Your task to perform on an android device: Go to calendar. Show me events next week Image 0: 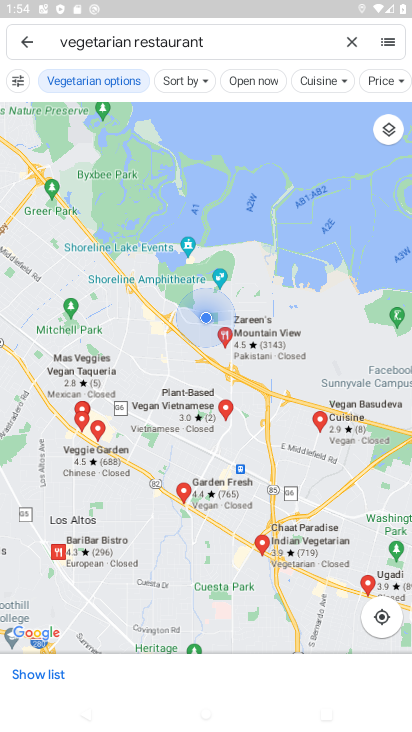
Step 0: press home button
Your task to perform on an android device: Go to calendar. Show me events next week Image 1: 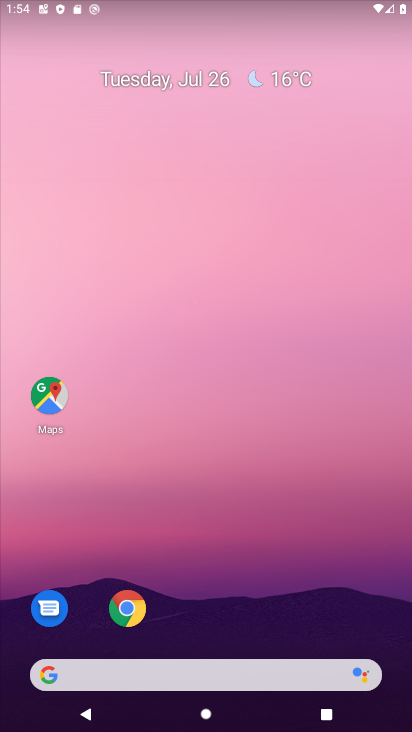
Step 1: drag from (314, 611) to (283, 334)
Your task to perform on an android device: Go to calendar. Show me events next week Image 2: 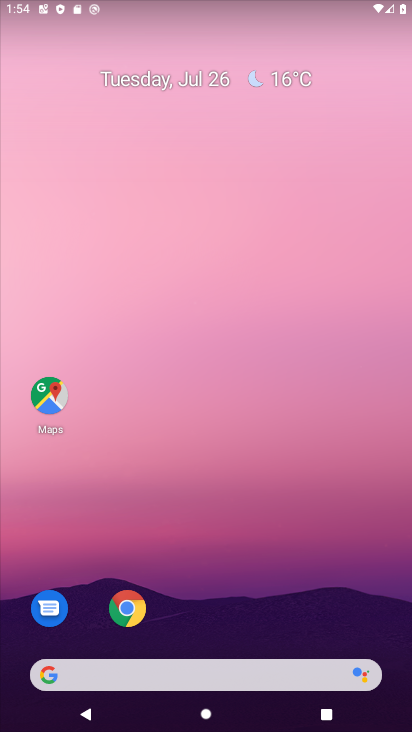
Step 2: drag from (239, 610) to (221, 123)
Your task to perform on an android device: Go to calendar. Show me events next week Image 3: 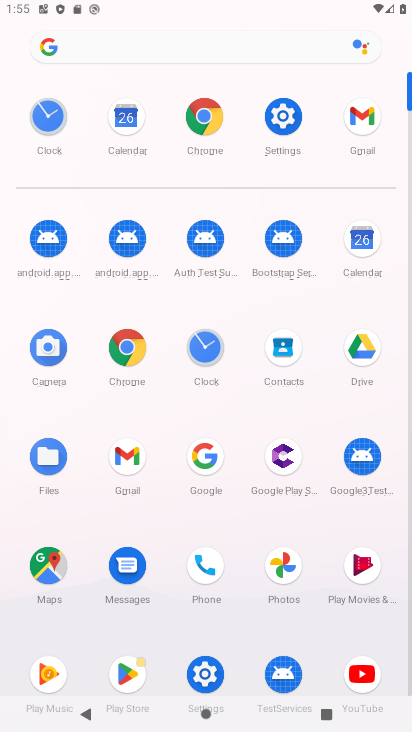
Step 3: click (347, 239)
Your task to perform on an android device: Go to calendar. Show me events next week Image 4: 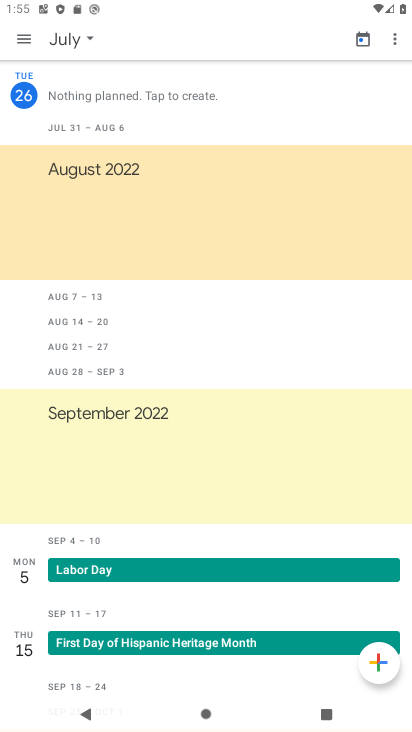
Step 4: task complete